Your task to perform on an android device: change the clock style Image 0: 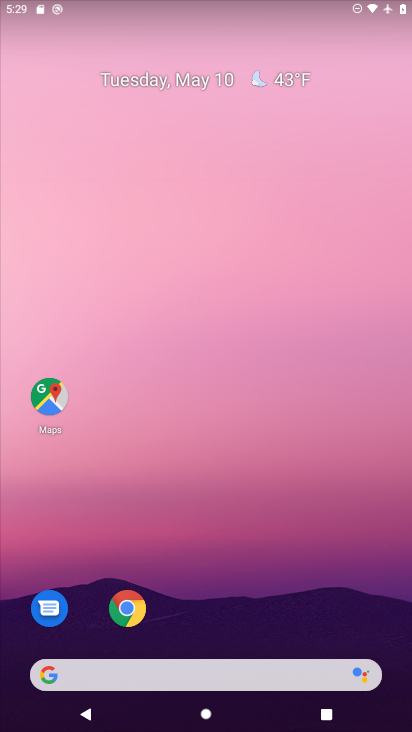
Step 0: drag from (185, 633) to (294, 35)
Your task to perform on an android device: change the clock style Image 1: 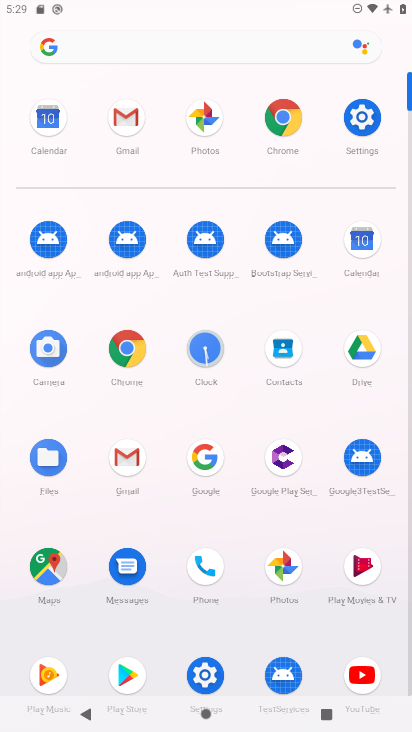
Step 1: click (203, 358)
Your task to perform on an android device: change the clock style Image 2: 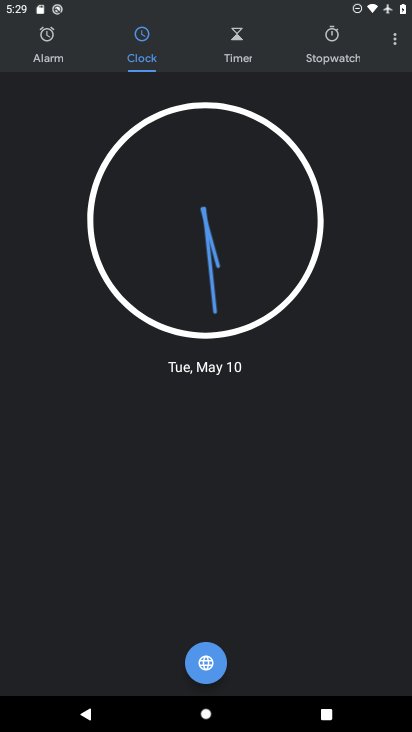
Step 2: click (393, 41)
Your task to perform on an android device: change the clock style Image 3: 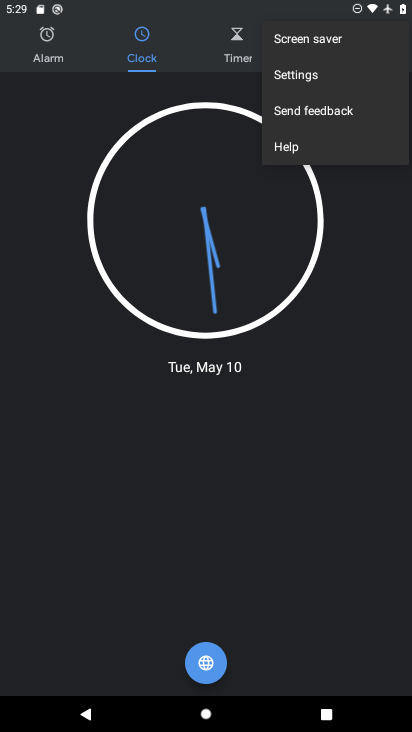
Step 3: click (313, 70)
Your task to perform on an android device: change the clock style Image 4: 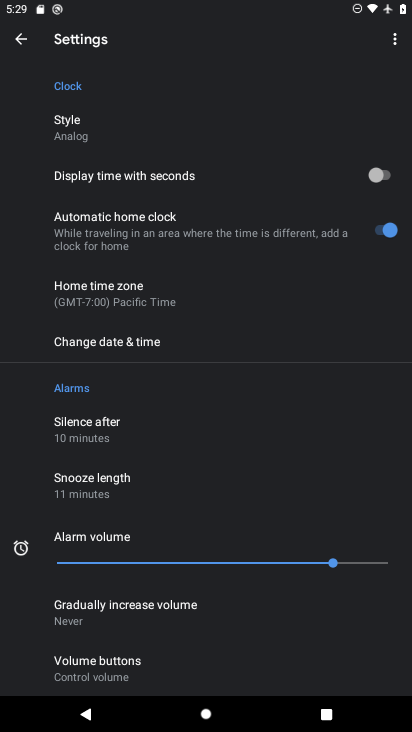
Step 4: click (111, 122)
Your task to perform on an android device: change the clock style Image 5: 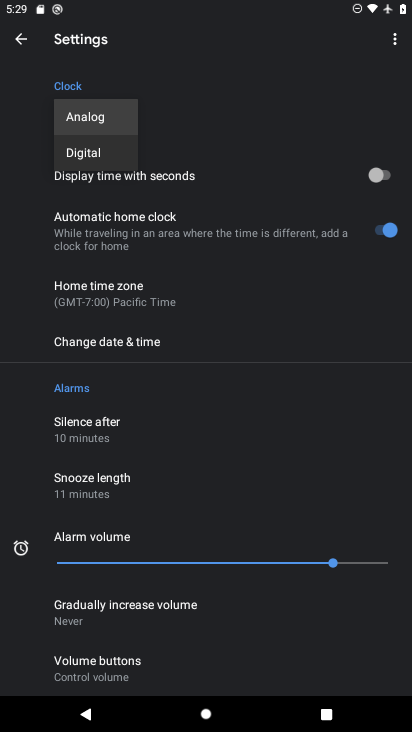
Step 5: click (85, 157)
Your task to perform on an android device: change the clock style Image 6: 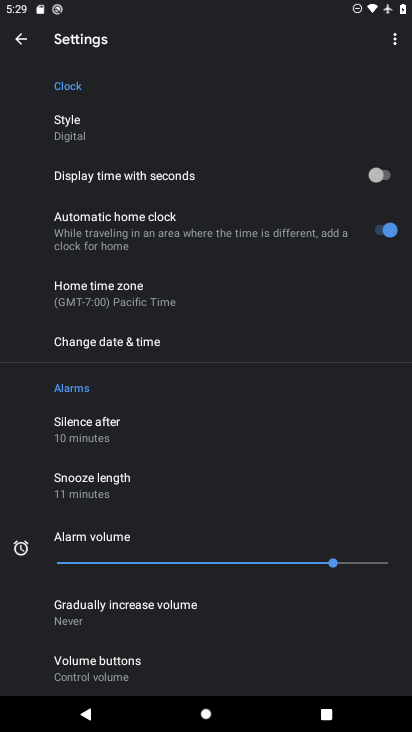
Step 6: task complete